Your task to perform on an android device: turn on improve location accuracy Image 0: 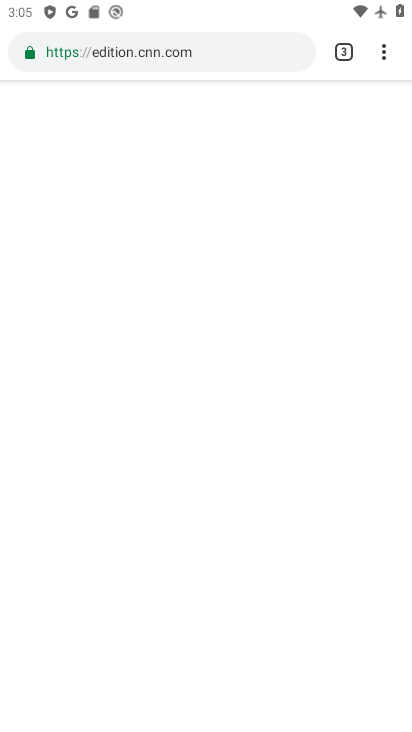
Step 0: press home button
Your task to perform on an android device: turn on improve location accuracy Image 1: 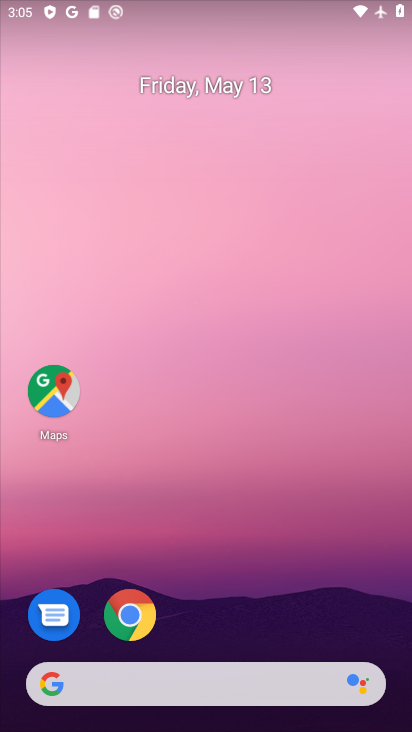
Step 1: drag from (201, 683) to (291, 160)
Your task to perform on an android device: turn on improve location accuracy Image 2: 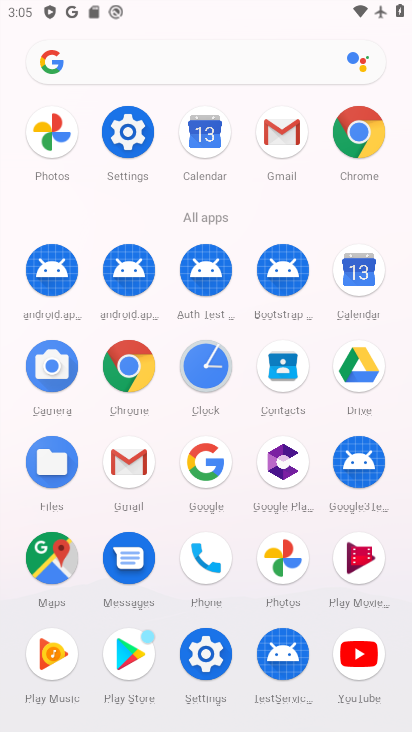
Step 2: click (129, 142)
Your task to perform on an android device: turn on improve location accuracy Image 3: 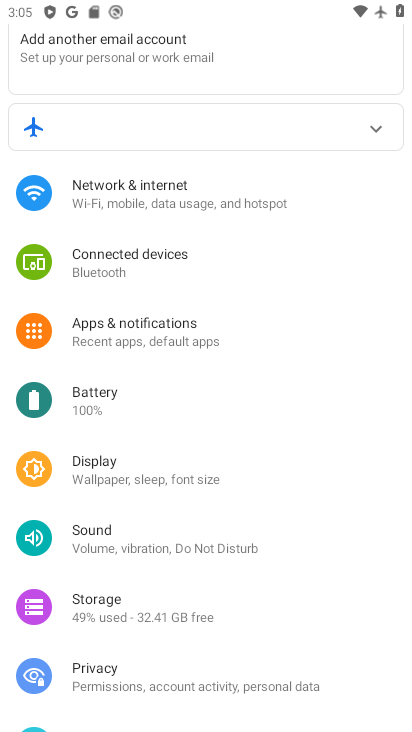
Step 3: drag from (283, 646) to (360, 307)
Your task to perform on an android device: turn on improve location accuracy Image 4: 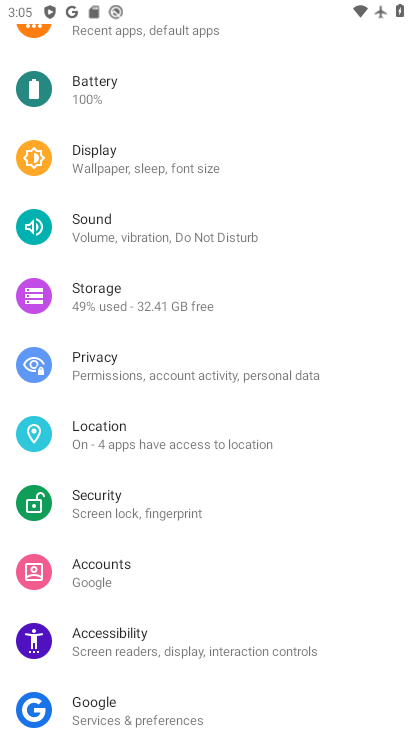
Step 4: click (160, 433)
Your task to perform on an android device: turn on improve location accuracy Image 5: 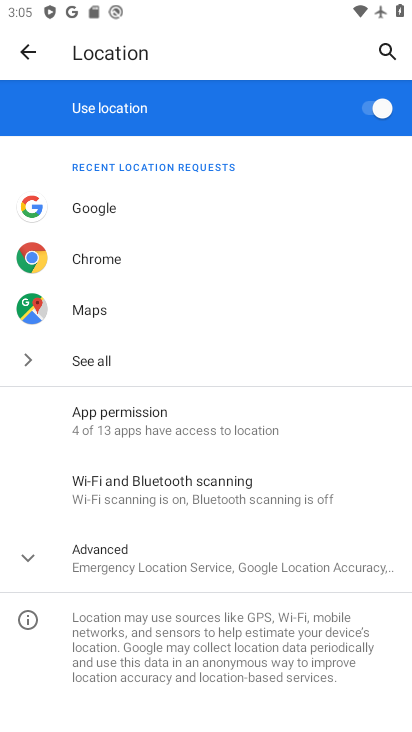
Step 5: click (154, 570)
Your task to perform on an android device: turn on improve location accuracy Image 6: 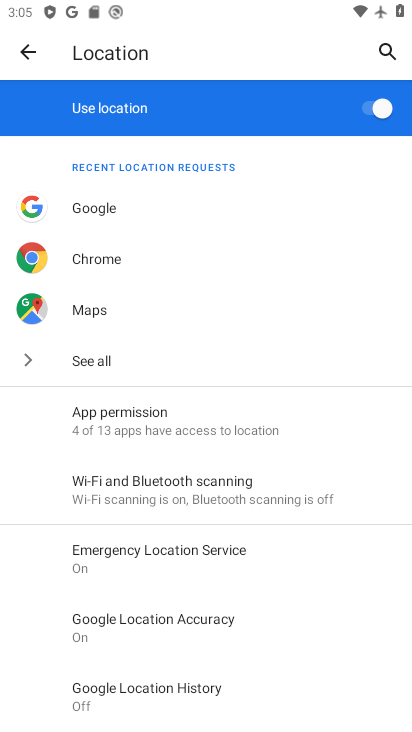
Step 6: click (182, 624)
Your task to perform on an android device: turn on improve location accuracy Image 7: 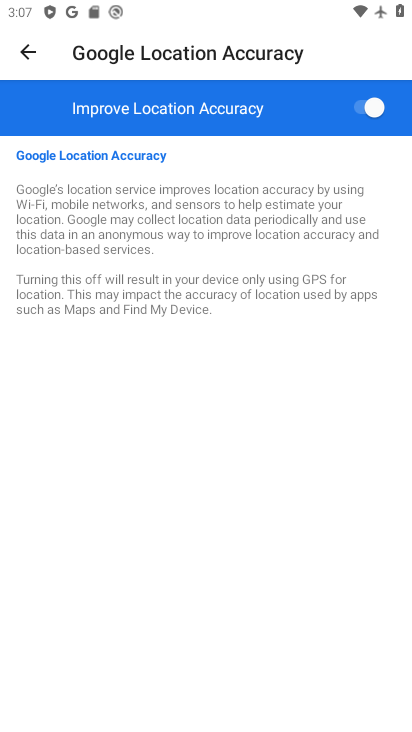
Step 7: task complete